Your task to perform on an android device: toggle translation in the chrome app Image 0: 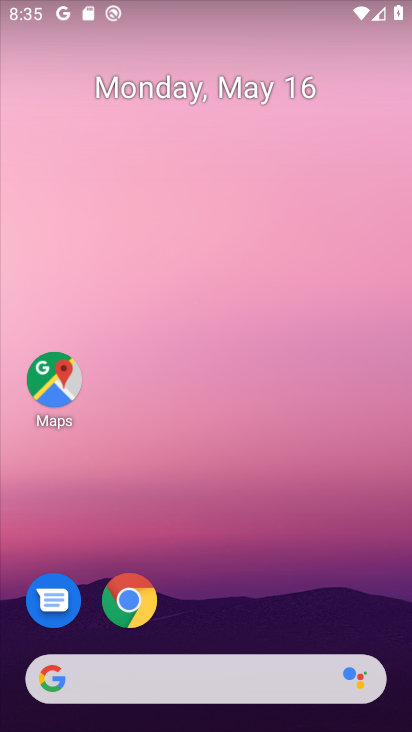
Step 0: drag from (354, 674) to (101, 75)
Your task to perform on an android device: toggle translation in the chrome app Image 1: 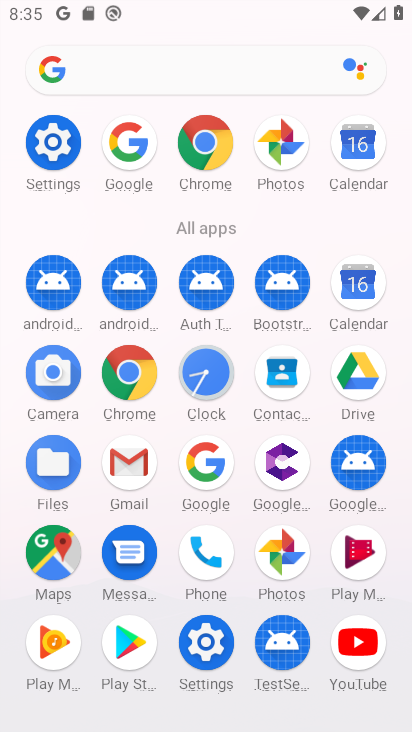
Step 1: click (201, 122)
Your task to perform on an android device: toggle translation in the chrome app Image 2: 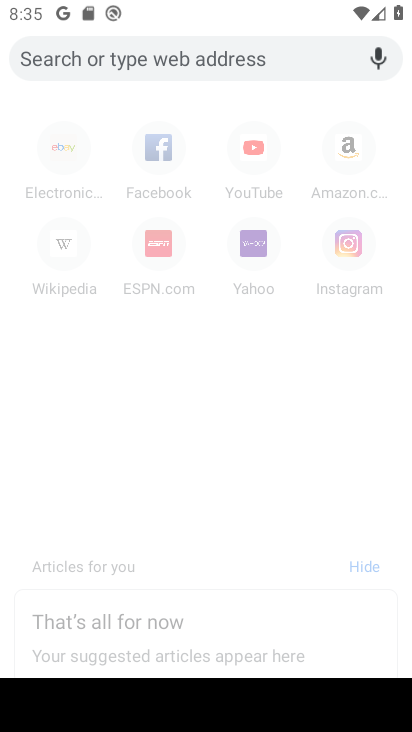
Step 2: press back button
Your task to perform on an android device: toggle translation in the chrome app Image 3: 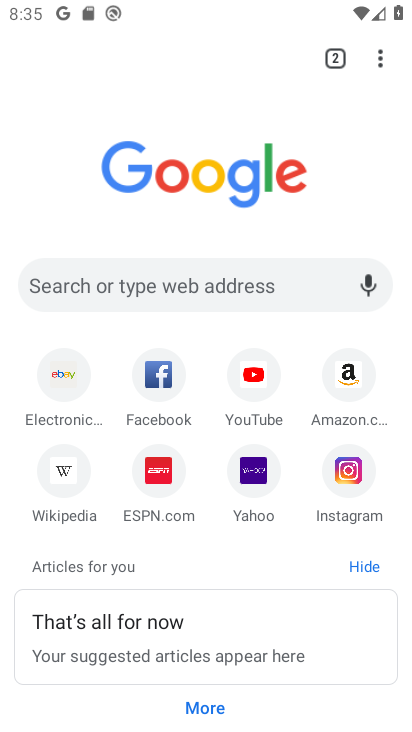
Step 3: drag from (373, 60) to (176, 14)
Your task to perform on an android device: toggle translation in the chrome app Image 4: 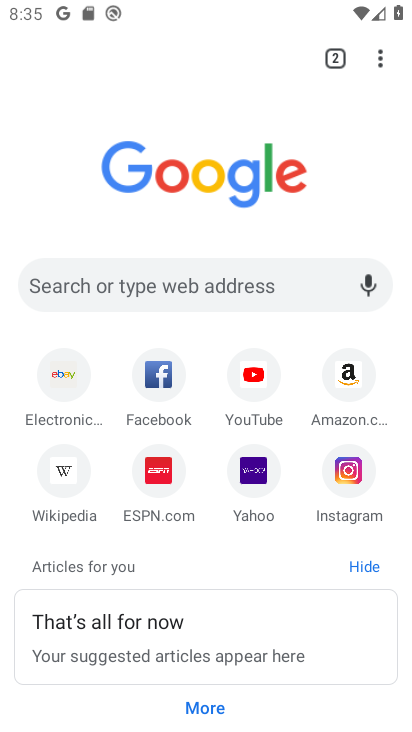
Step 4: click (373, 64)
Your task to perform on an android device: toggle translation in the chrome app Image 5: 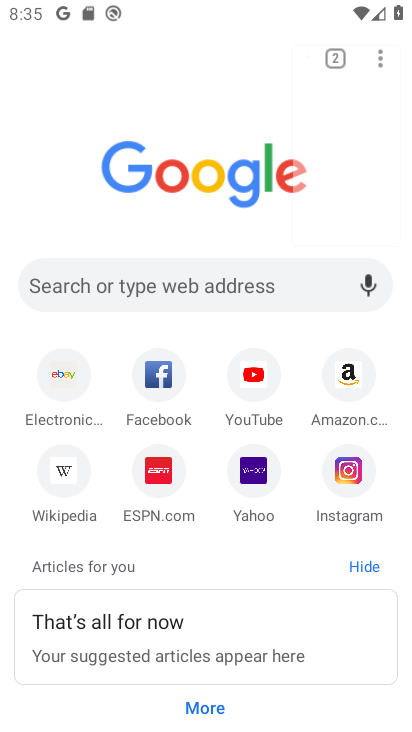
Step 5: click (375, 62)
Your task to perform on an android device: toggle translation in the chrome app Image 6: 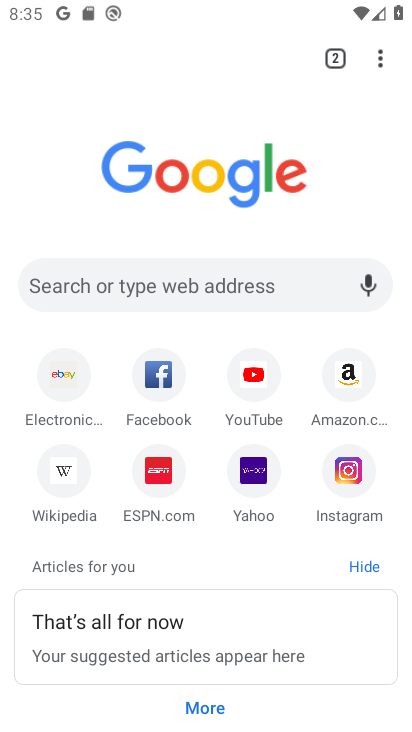
Step 6: click (386, 45)
Your task to perform on an android device: toggle translation in the chrome app Image 7: 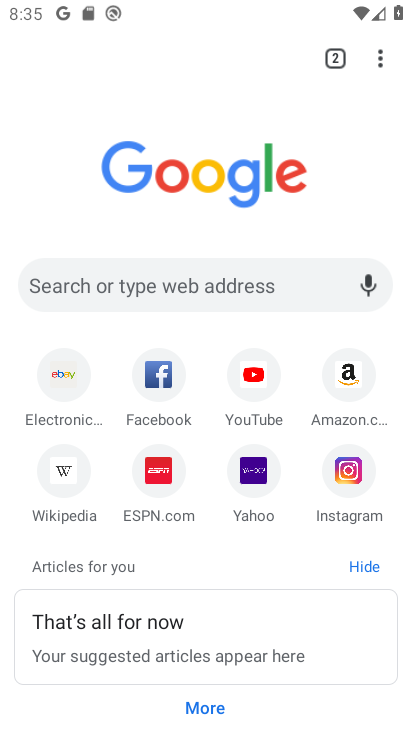
Step 7: click (386, 45)
Your task to perform on an android device: toggle translation in the chrome app Image 8: 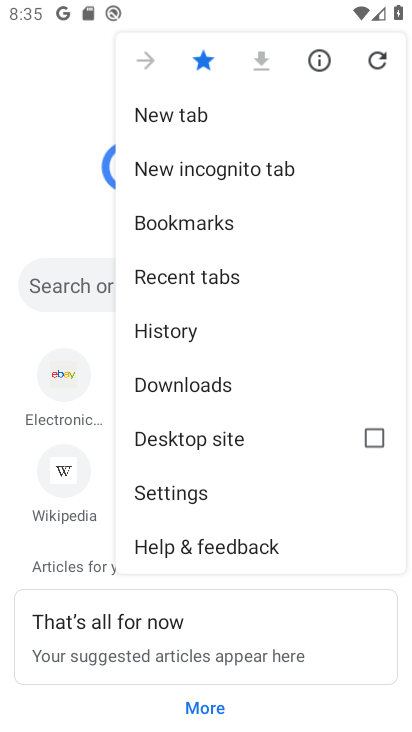
Step 8: drag from (168, 508) to (25, 188)
Your task to perform on an android device: toggle translation in the chrome app Image 9: 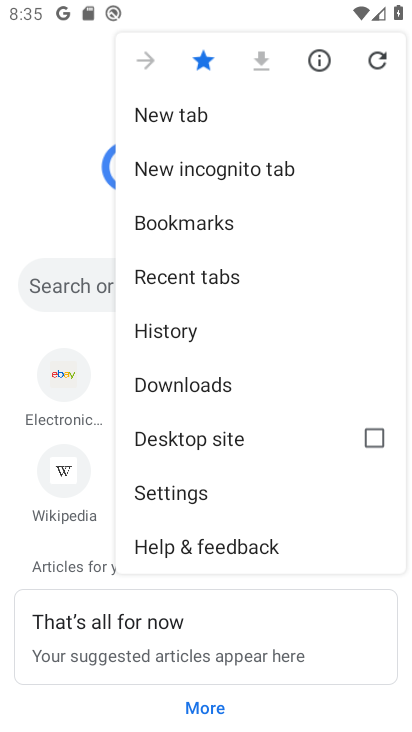
Step 9: drag from (192, 480) to (167, 13)
Your task to perform on an android device: toggle translation in the chrome app Image 10: 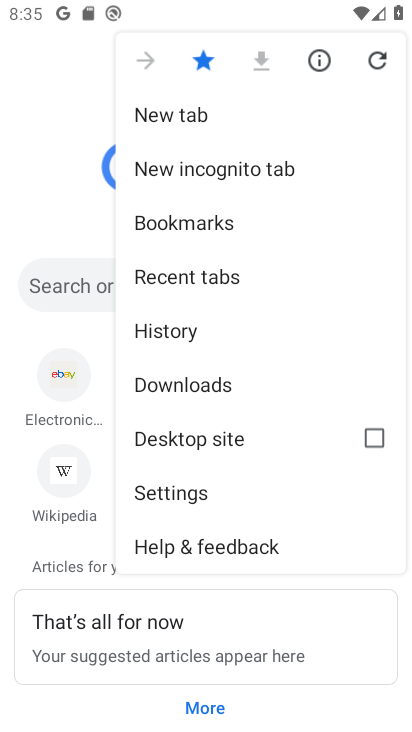
Step 10: click (176, 484)
Your task to perform on an android device: toggle translation in the chrome app Image 11: 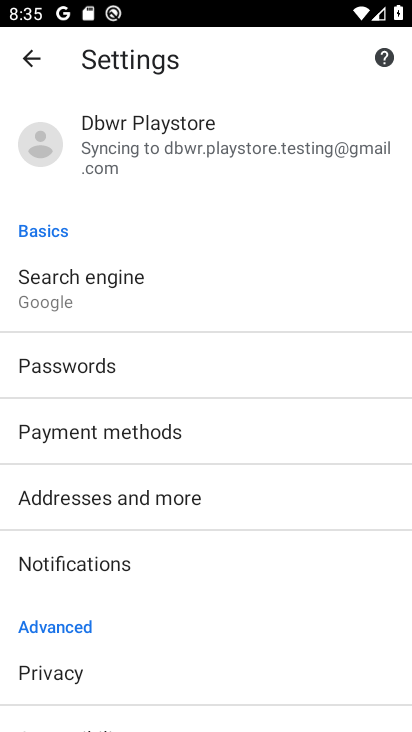
Step 11: drag from (141, 559) to (161, 356)
Your task to perform on an android device: toggle translation in the chrome app Image 12: 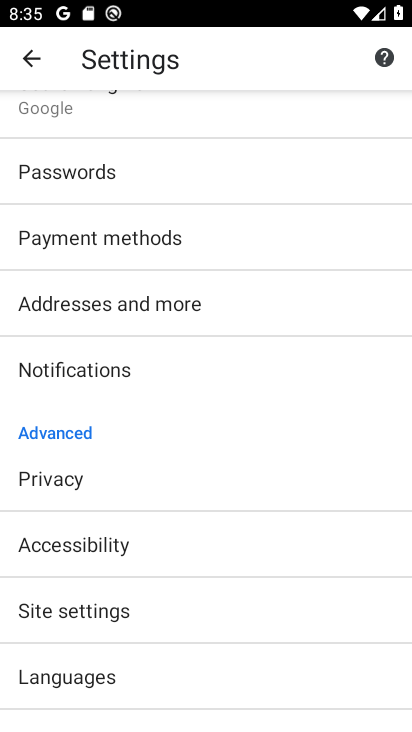
Step 12: click (77, 662)
Your task to perform on an android device: toggle translation in the chrome app Image 13: 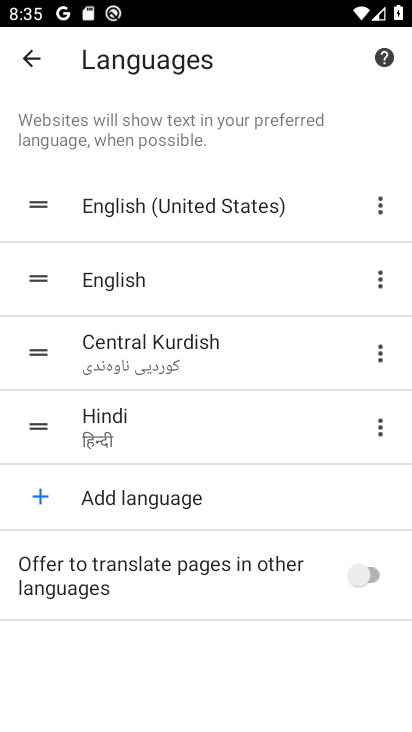
Step 13: click (351, 565)
Your task to perform on an android device: toggle translation in the chrome app Image 14: 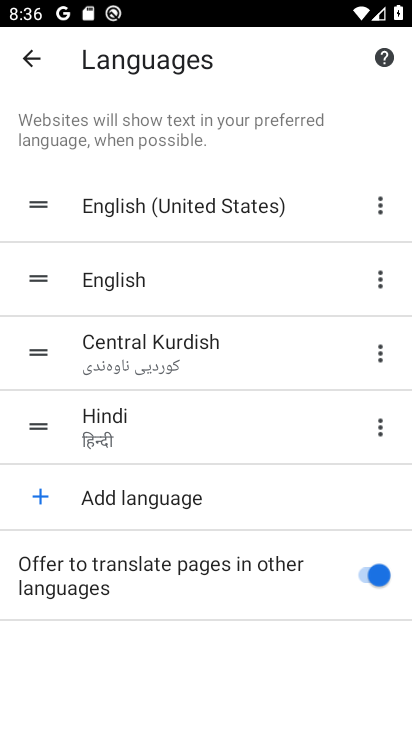
Step 14: task complete